Your task to perform on an android device: allow notifications from all sites in the chrome app Image 0: 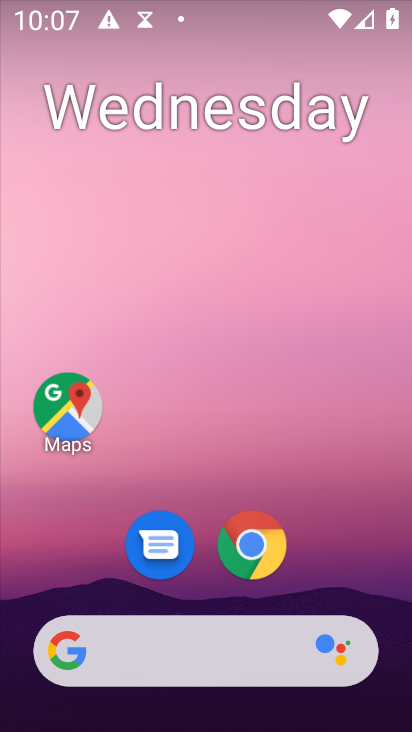
Step 0: click (260, 547)
Your task to perform on an android device: allow notifications from all sites in the chrome app Image 1: 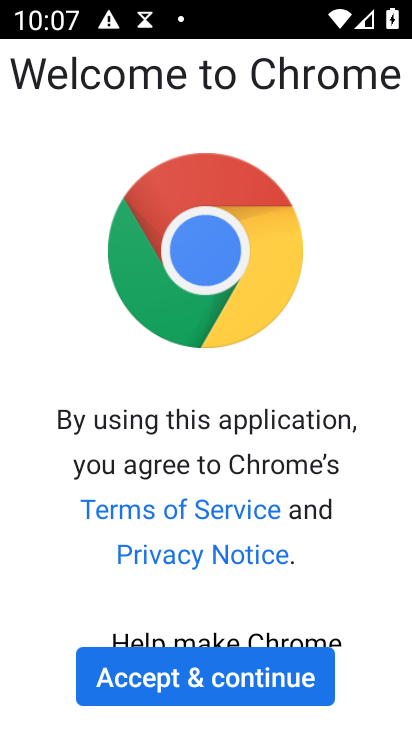
Step 1: click (209, 664)
Your task to perform on an android device: allow notifications from all sites in the chrome app Image 2: 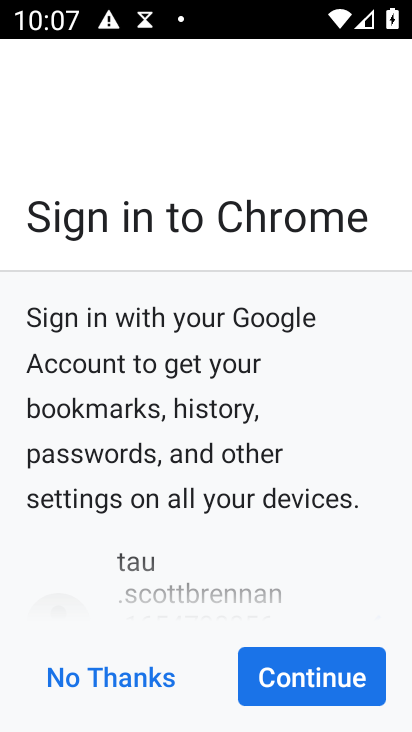
Step 2: click (274, 677)
Your task to perform on an android device: allow notifications from all sites in the chrome app Image 3: 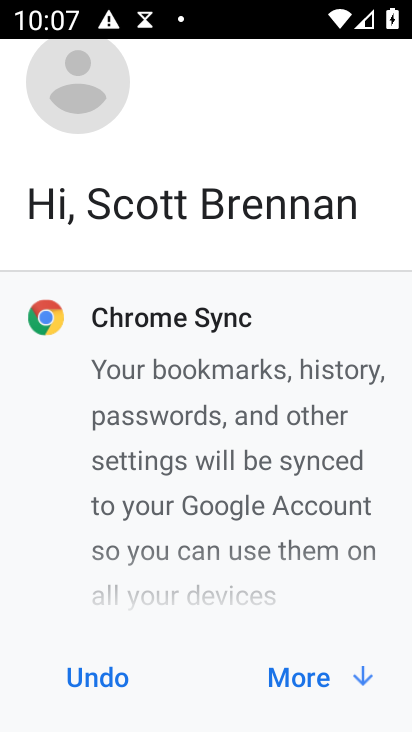
Step 3: click (274, 677)
Your task to perform on an android device: allow notifications from all sites in the chrome app Image 4: 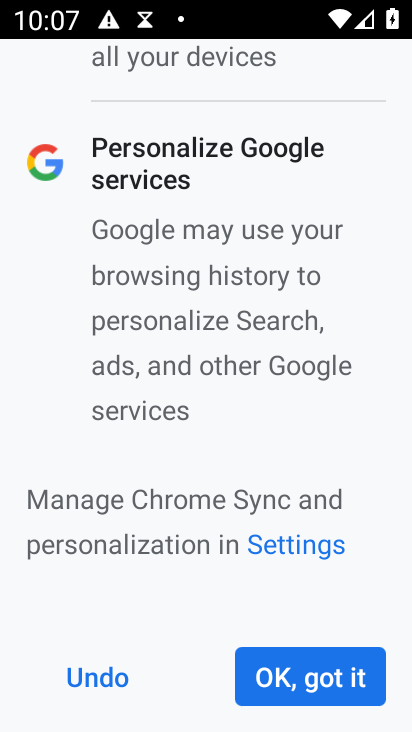
Step 4: click (274, 677)
Your task to perform on an android device: allow notifications from all sites in the chrome app Image 5: 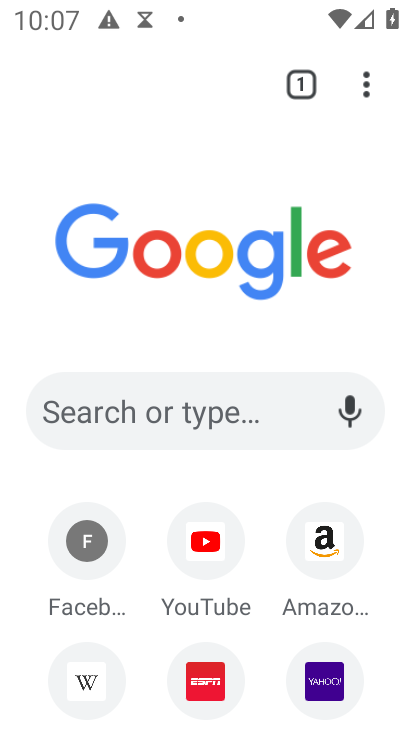
Step 5: click (363, 89)
Your task to perform on an android device: allow notifications from all sites in the chrome app Image 6: 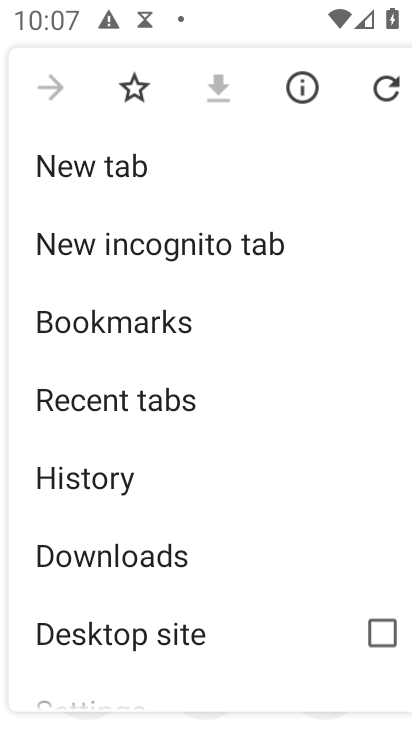
Step 6: drag from (111, 664) to (66, 265)
Your task to perform on an android device: allow notifications from all sites in the chrome app Image 7: 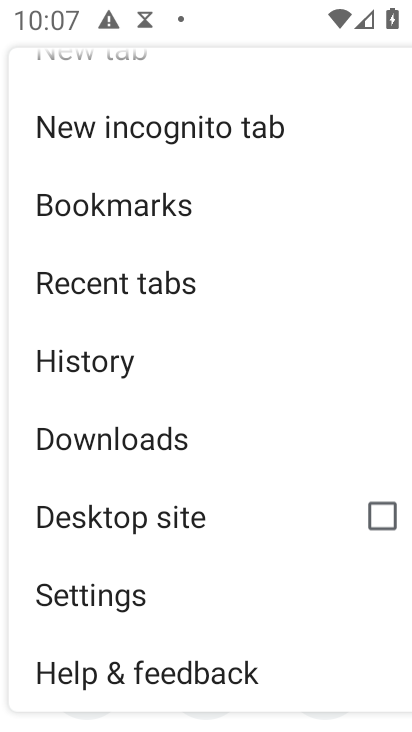
Step 7: click (122, 603)
Your task to perform on an android device: allow notifications from all sites in the chrome app Image 8: 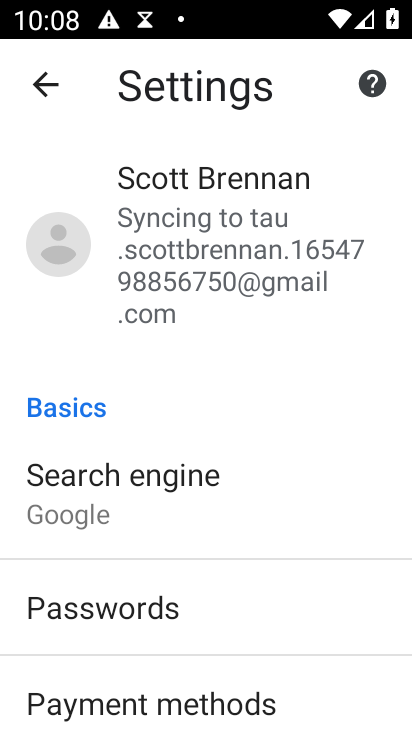
Step 8: drag from (183, 658) to (155, 388)
Your task to perform on an android device: allow notifications from all sites in the chrome app Image 9: 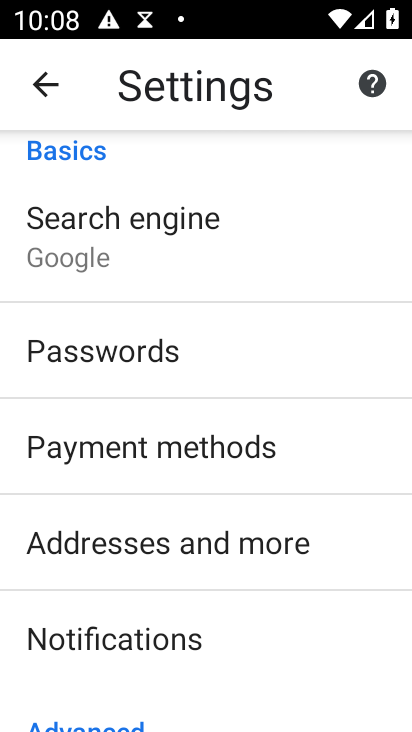
Step 9: click (163, 655)
Your task to perform on an android device: allow notifications from all sites in the chrome app Image 10: 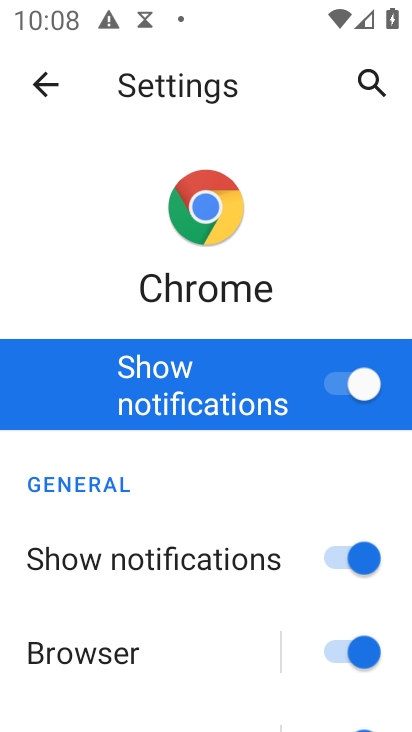
Step 10: task complete